Your task to perform on an android device: Go to sound settings Image 0: 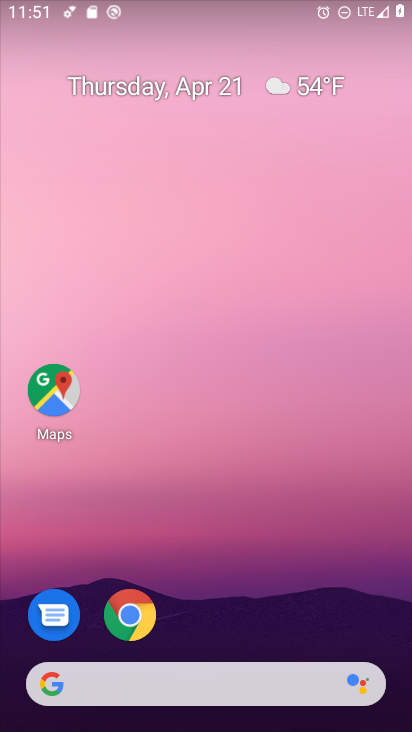
Step 0: drag from (231, 568) to (339, 48)
Your task to perform on an android device: Go to sound settings Image 1: 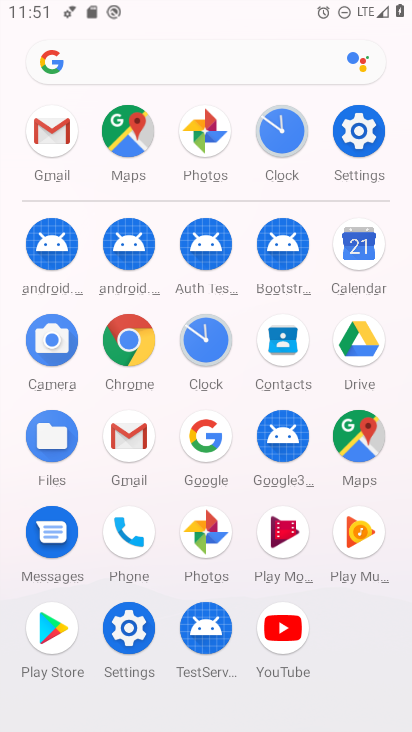
Step 1: click (113, 631)
Your task to perform on an android device: Go to sound settings Image 2: 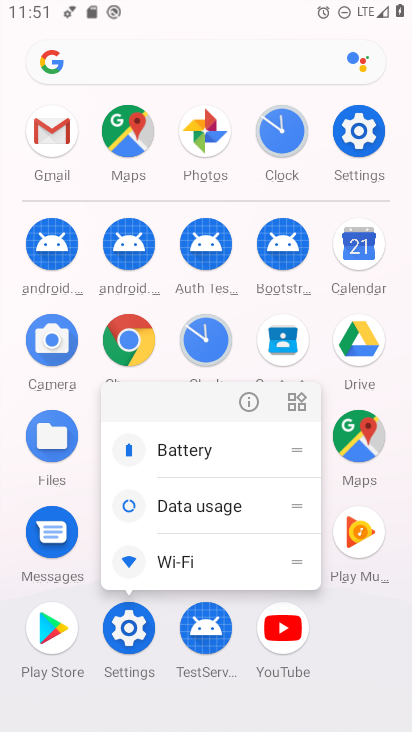
Step 2: click (115, 631)
Your task to perform on an android device: Go to sound settings Image 3: 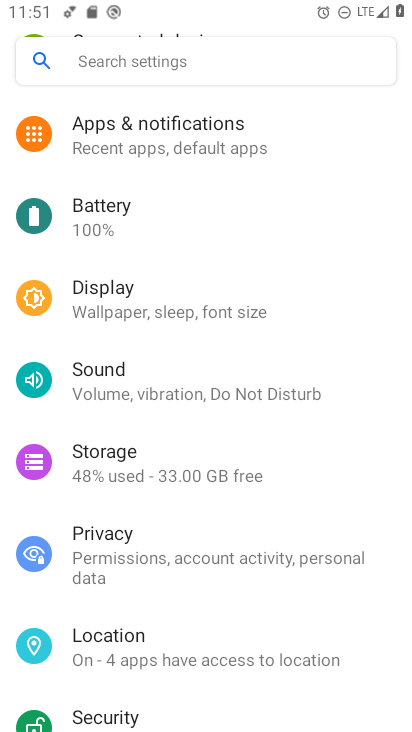
Step 3: click (186, 389)
Your task to perform on an android device: Go to sound settings Image 4: 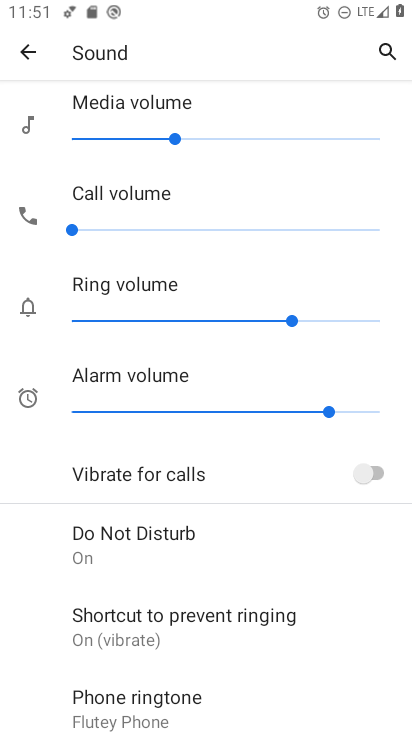
Step 4: task complete